Your task to perform on an android device: open chrome and create a bookmark for the current page Image 0: 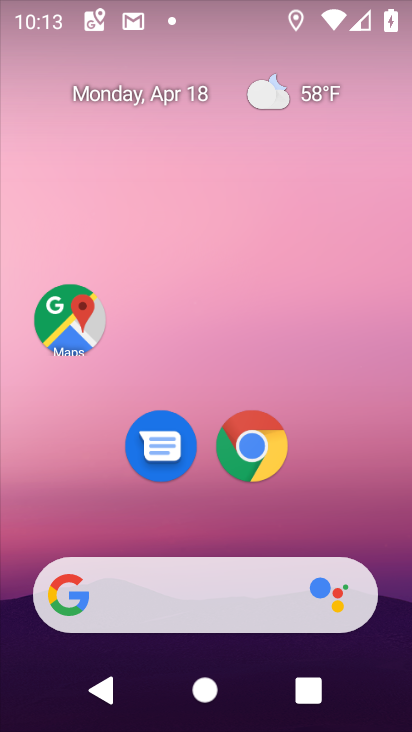
Step 0: drag from (379, 526) to (364, 143)
Your task to perform on an android device: open chrome and create a bookmark for the current page Image 1: 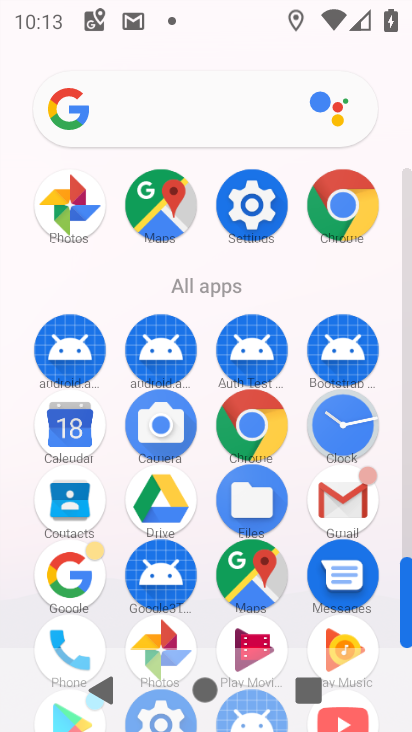
Step 1: click (266, 428)
Your task to perform on an android device: open chrome and create a bookmark for the current page Image 2: 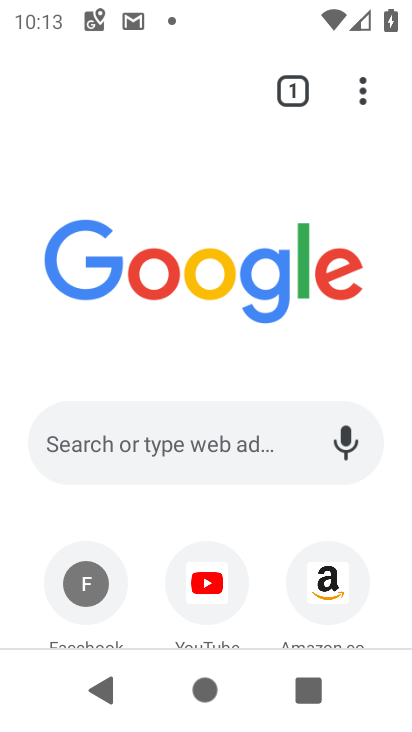
Step 2: click (364, 92)
Your task to perform on an android device: open chrome and create a bookmark for the current page Image 3: 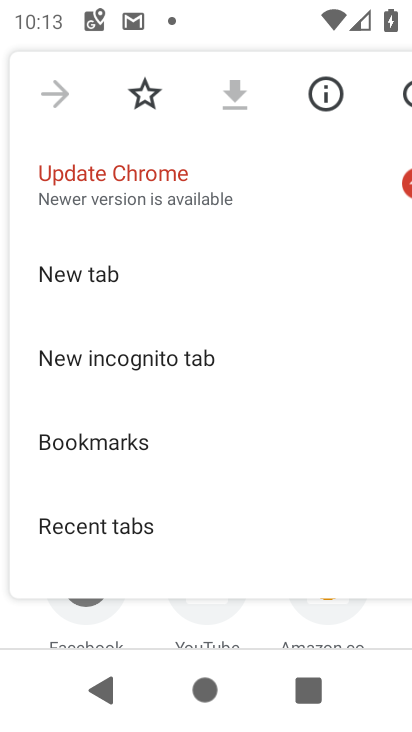
Step 3: click (150, 96)
Your task to perform on an android device: open chrome and create a bookmark for the current page Image 4: 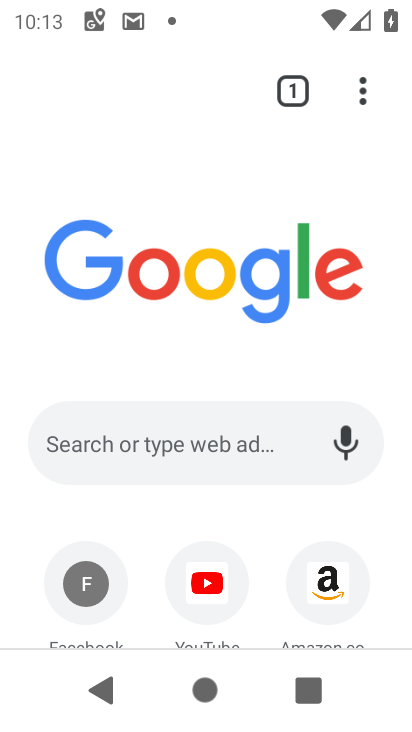
Step 4: task complete